Your task to perform on an android device: check google app version Image 0: 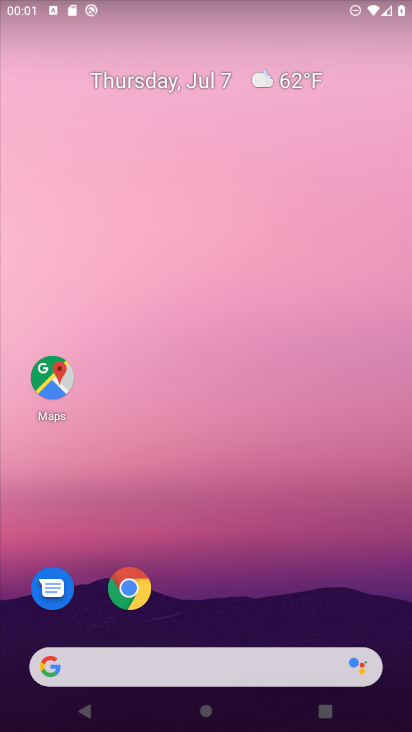
Step 0: click (129, 590)
Your task to perform on an android device: check google app version Image 1: 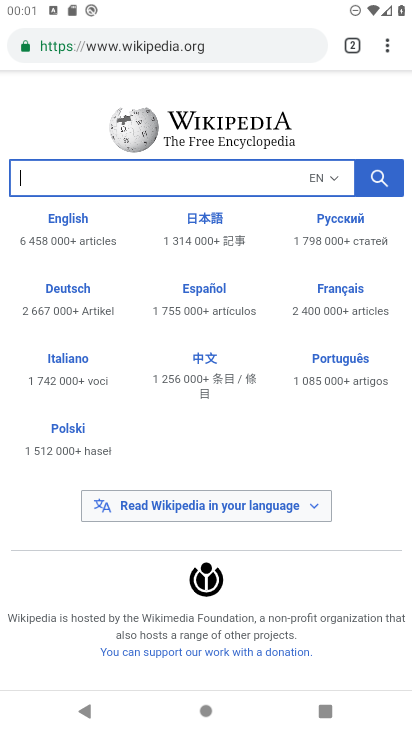
Step 1: click (391, 51)
Your task to perform on an android device: check google app version Image 2: 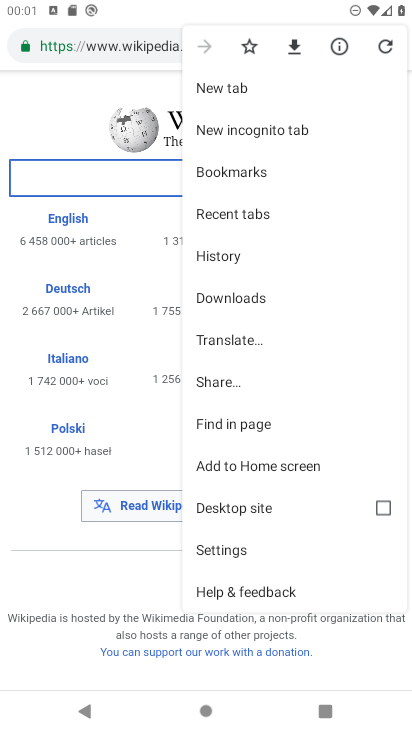
Step 2: click (226, 548)
Your task to perform on an android device: check google app version Image 3: 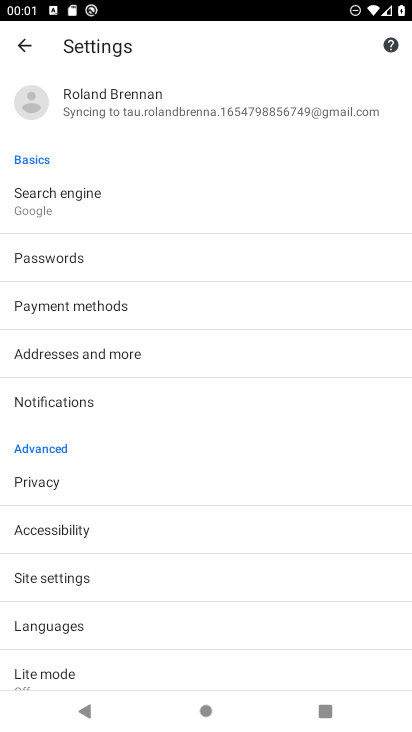
Step 3: drag from (187, 637) to (211, 279)
Your task to perform on an android device: check google app version Image 4: 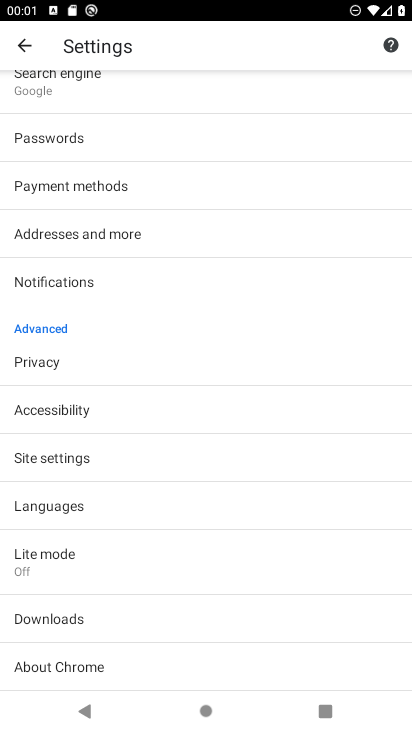
Step 4: click (64, 671)
Your task to perform on an android device: check google app version Image 5: 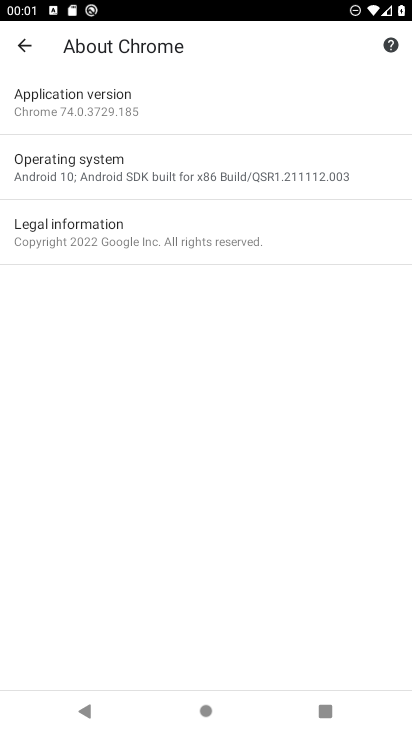
Step 5: click (68, 101)
Your task to perform on an android device: check google app version Image 6: 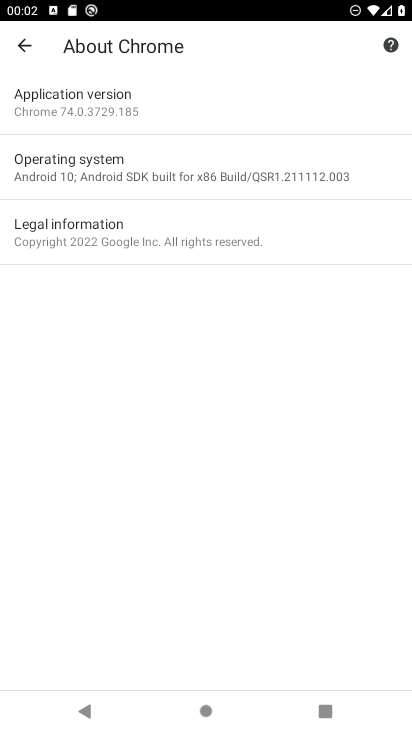
Step 6: task complete